Your task to perform on an android device: Turn on the flashlight Image 0: 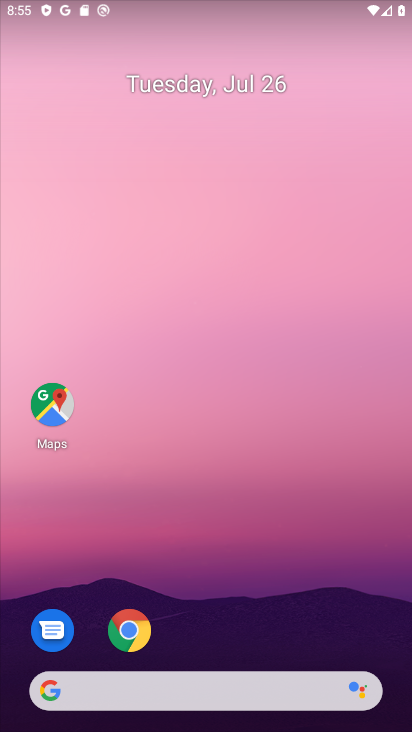
Step 0: drag from (184, 6) to (268, 317)
Your task to perform on an android device: Turn on the flashlight Image 1: 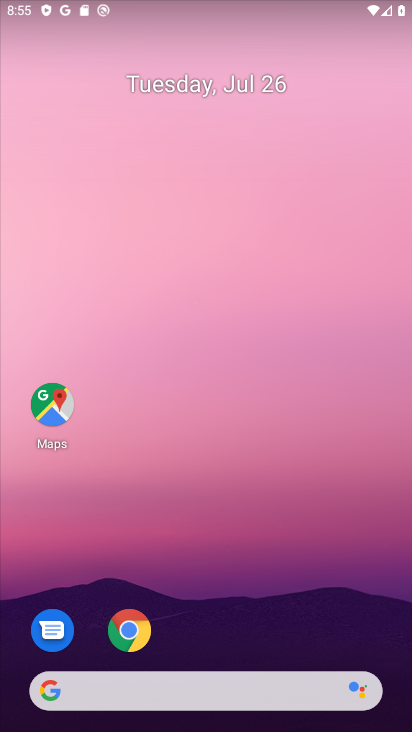
Step 1: drag from (196, 4) to (255, 178)
Your task to perform on an android device: Turn on the flashlight Image 2: 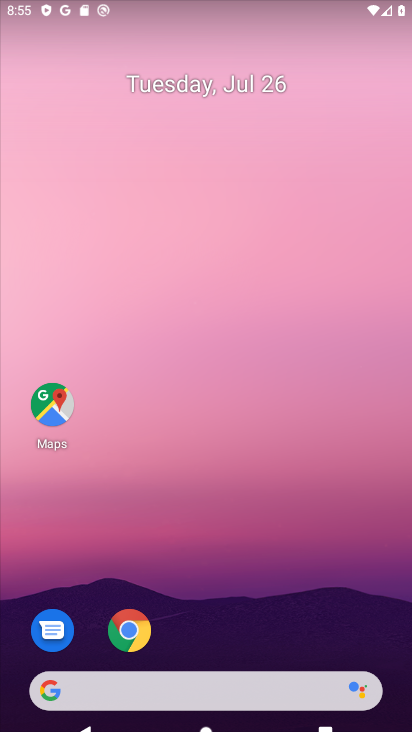
Step 2: click (267, 262)
Your task to perform on an android device: Turn on the flashlight Image 3: 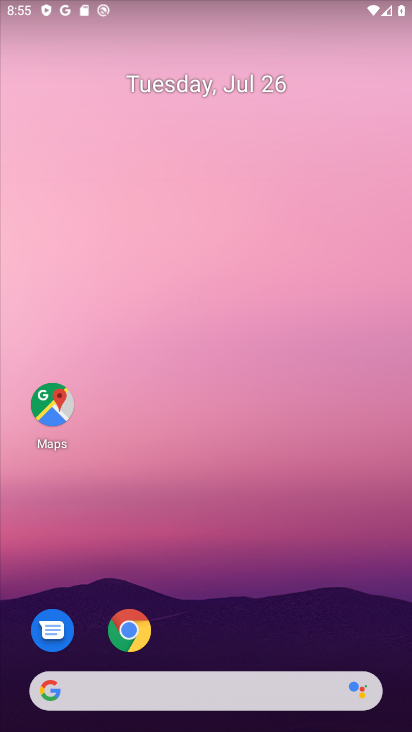
Step 3: drag from (212, 6) to (264, 438)
Your task to perform on an android device: Turn on the flashlight Image 4: 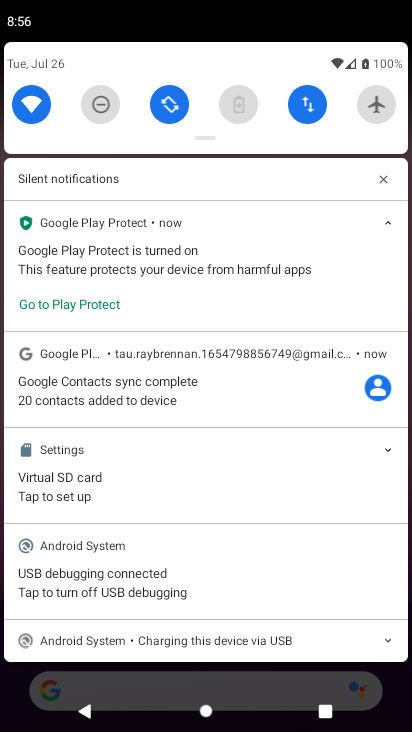
Step 4: drag from (205, 127) to (254, 427)
Your task to perform on an android device: Turn on the flashlight Image 5: 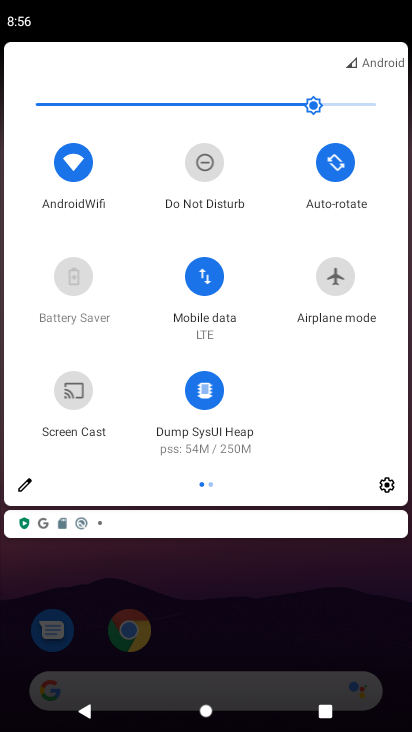
Step 5: click (29, 486)
Your task to perform on an android device: Turn on the flashlight Image 6: 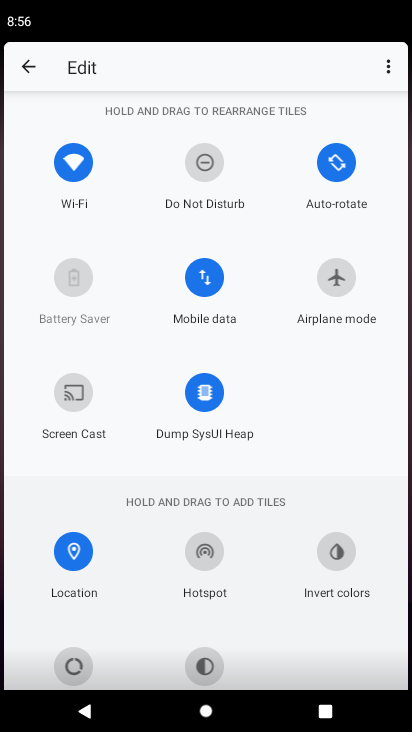
Step 6: task complete